Your task to perform on an android device: toggle data saver in the chrome app Image 0: 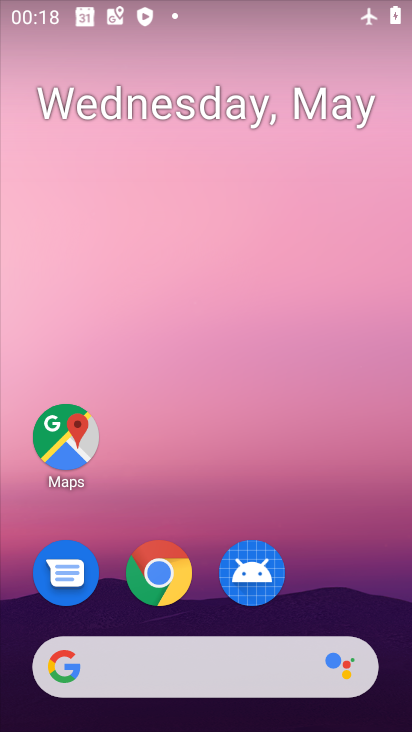
Step 0: click (150, 578)
Your task to perform on an android device: toggle data saver in the chrome app Image 1: 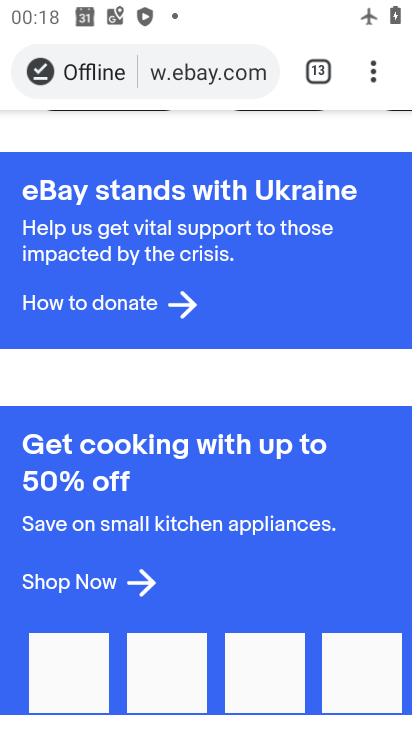
Step 1: click (376, 75)
Your task to perform on an android device: toggle data saver in the chrome app Image 2: 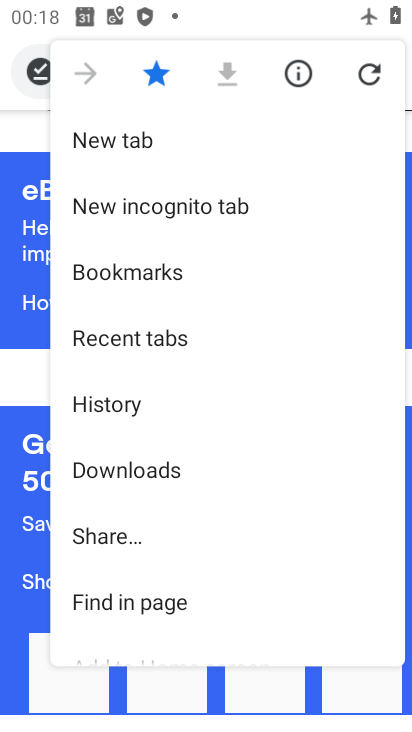
Step 2: drag from (260, 520) to (228, 169)
Your task to perform on an android device: toggle data saver in the chrome app Image 3: 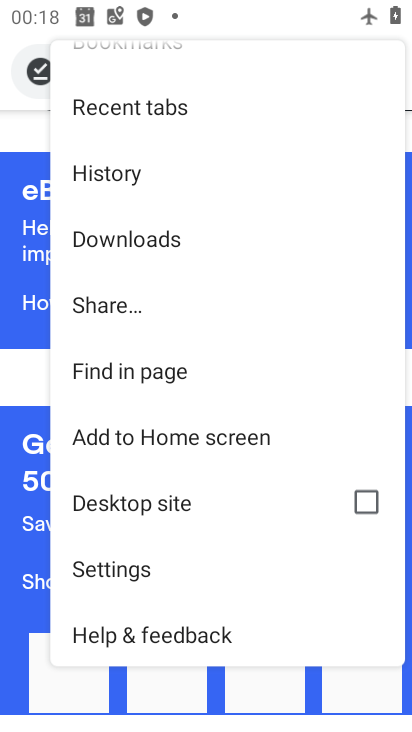
Step 3: drag from (255, 546) to (233, 313)
Your task to perform on an android device: toggle data saver in the chrome app Image 4: 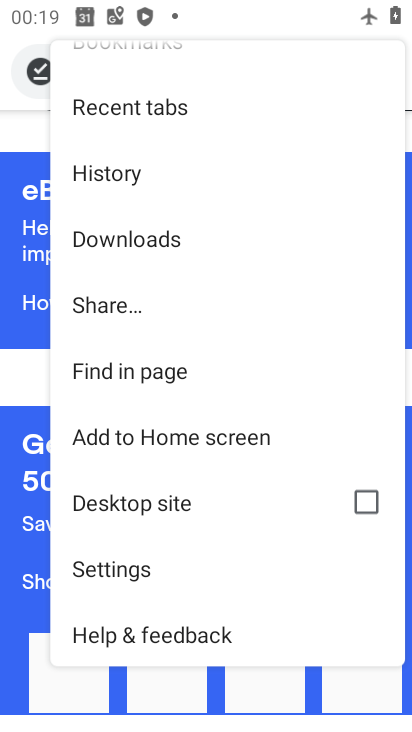
Step 4: click (129, 568)
Your task to perform on an android device: toggle data saver in the chrome app Image 5: 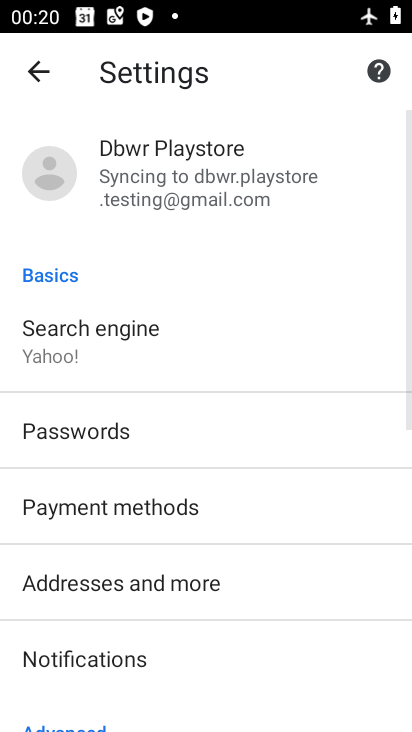
Step 5: drag from (191, 562) to (113, 241)
Your task to perform on an android device: toggle data saver in the chrome app Image 6: 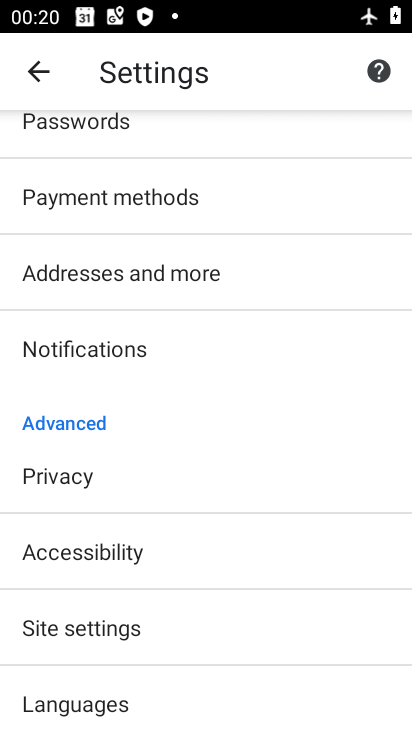
Step 6: drag from (228, 550) to (206, 320)
Your task to perform on an android device: toggle data saver in the chrome app Image 7: 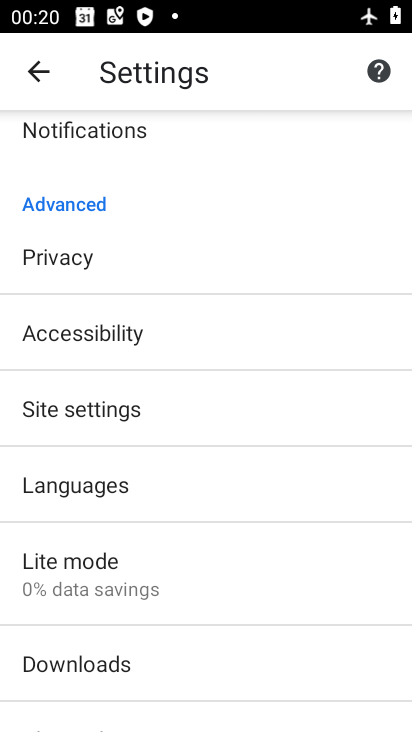
Step 7: click (94, 557)
Your task to perform on an android device: toggle data saver in the chrome app Image 8: 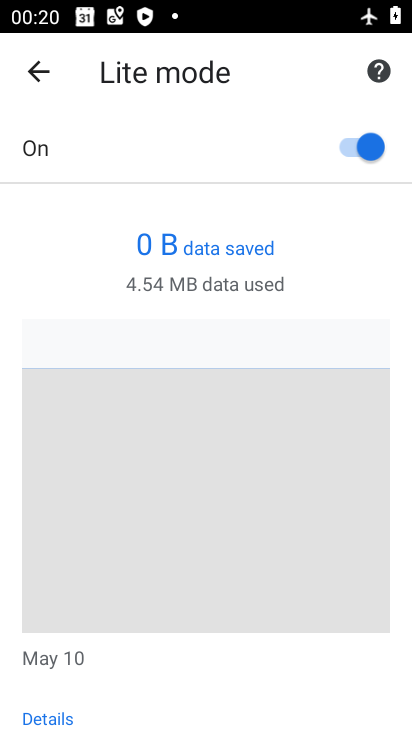
Step 8: click (364, 150)
Your task to perform on an android device: toggle data saver in the chrome app Image 9: 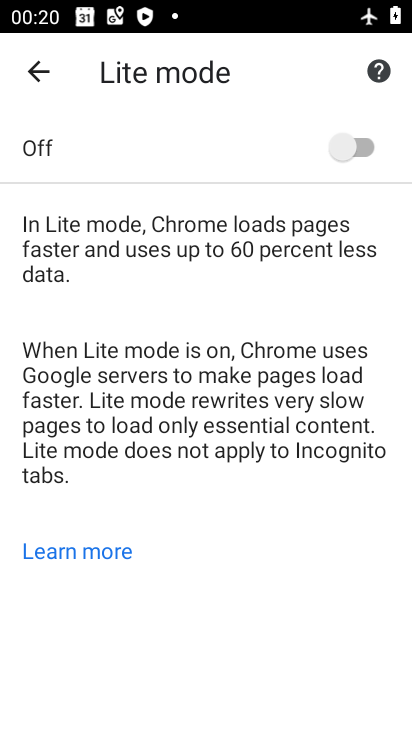
Step 9: task complete